Your task to perform on an android device: Open the stopwatch Image 0: 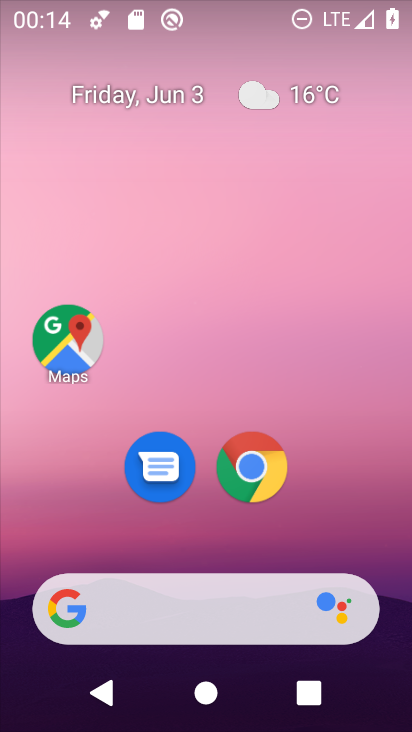
Step 0: drag from (387, 550) to (349, 30)
Your task to perform on an android device: Open the stopwatch Image 1: 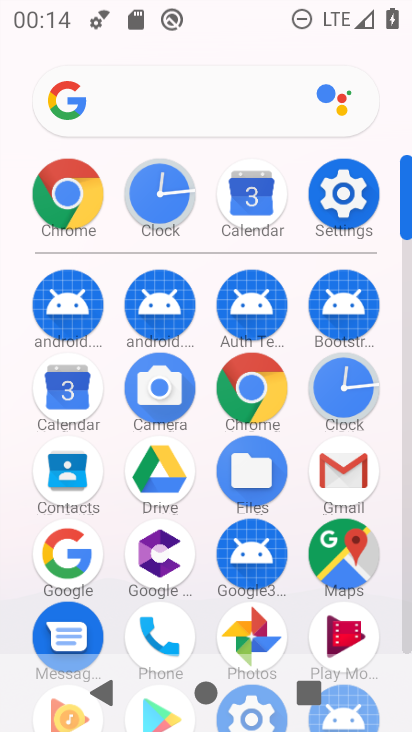
Step 1: click (344, 385)
Your task to perform on an android device: Open the stopwatch Image 2: 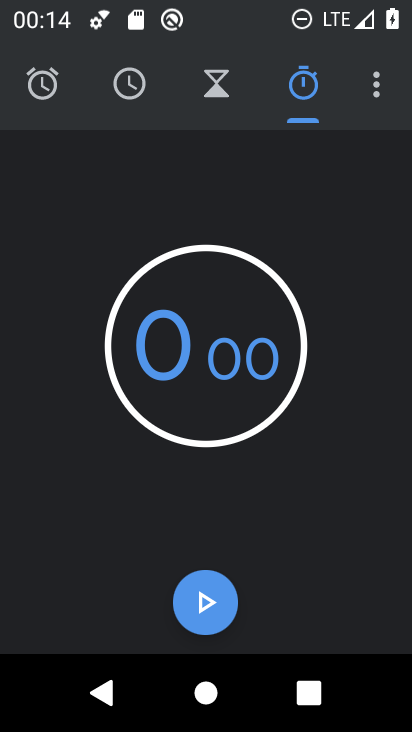
Step 2: task complete